Your task to perform on an android device: allow cookies in the chrome app Image 0: 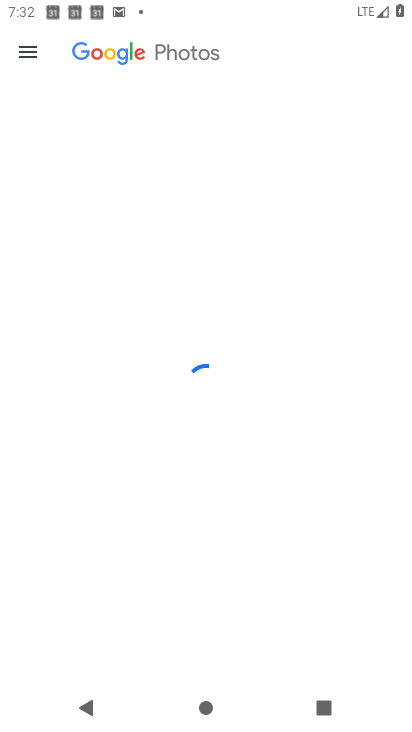
Step 0: press home button
Your task to perform on an android device: allow cookies in the chrome app Image 1: 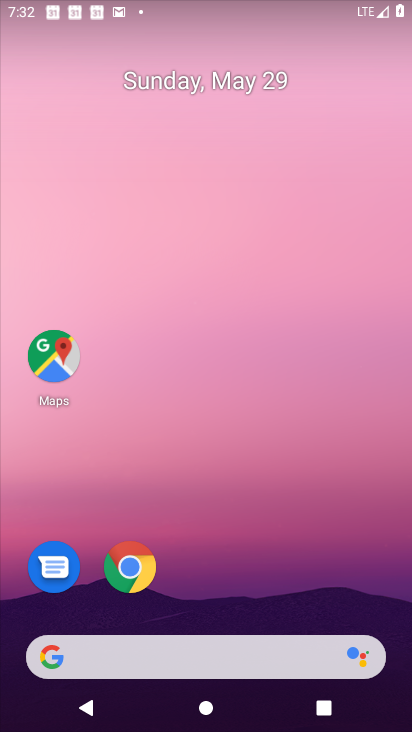
Step 1: click (132, 559)
Your task to perform on an android device: allow cookies in the chrome app Image 2: 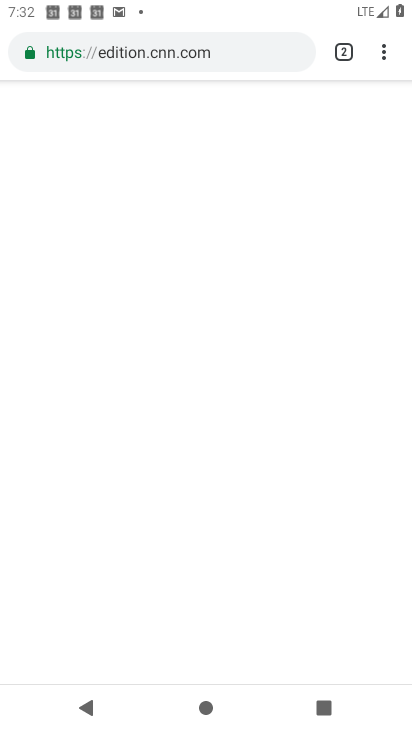
Step 2: click (381, 53)
Your task to perform on an android device: allow cookies in the chrome app Image 3: 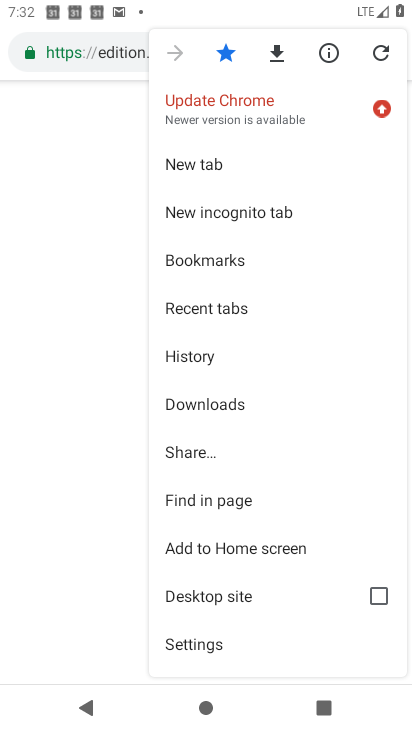
Step 3: click (206, 648)
Your task to perform on an android device: allow cookies in the chrome app Image 4: 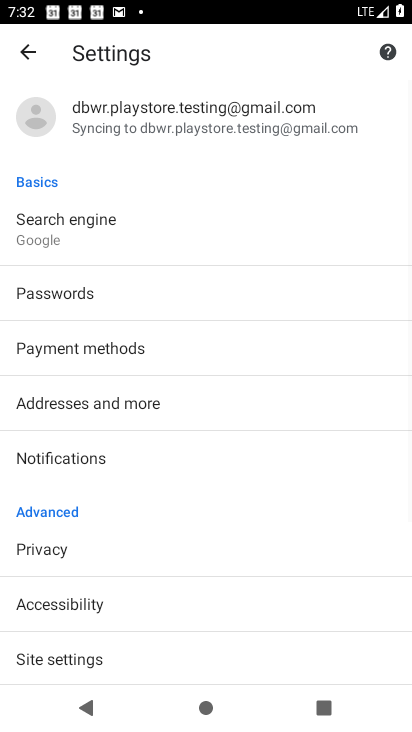
Step 4: drag from (162, 543) to (189, 397)
Your task to perform on an android device: allow cookies in the chrome app Image 5: 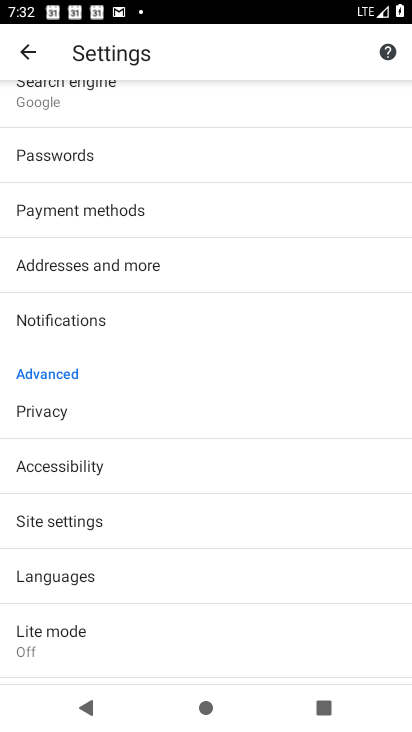
Step 5: click (74, 329)
Your task to perform on an android device: allow cookies in the chrome app Image 6: 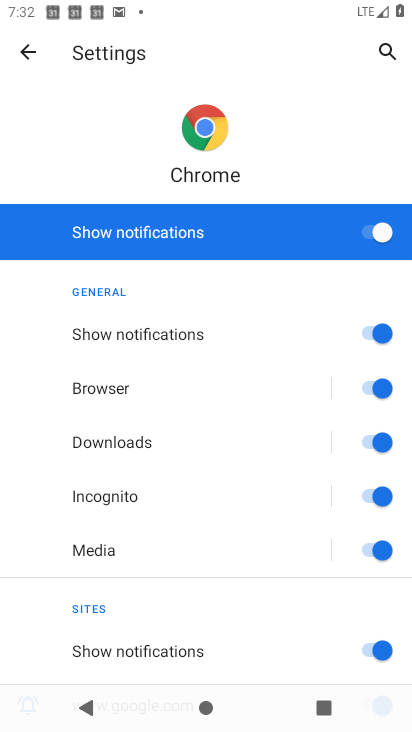
Step 6: click (26, 52)
Your task to perform on an android device: allow cookies in the chrome app Image 7: 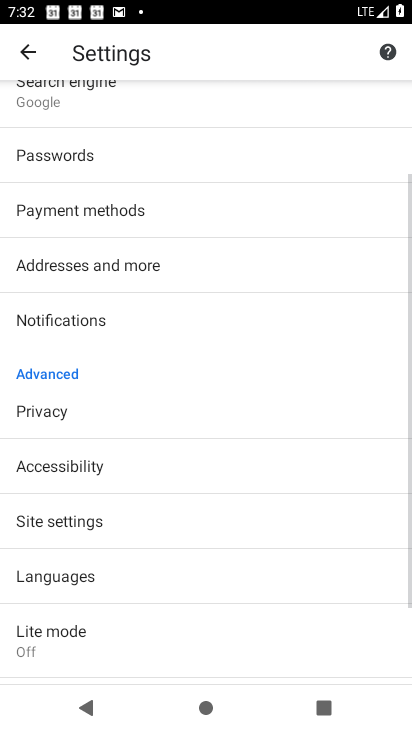
Step 7: click (96, 507)
Your task to perform on an android device: allow cookies in the chrome app Image 8: 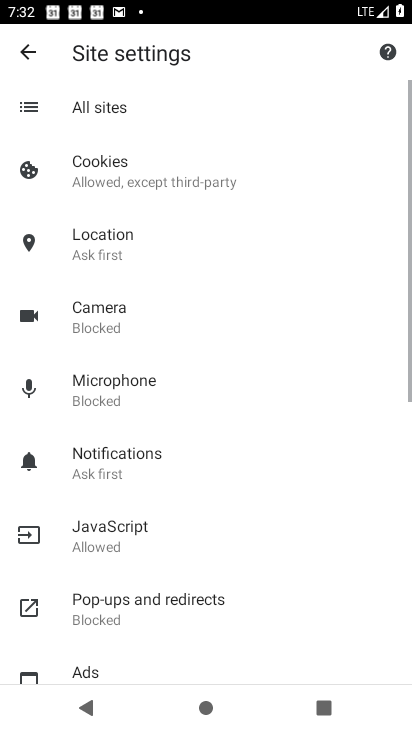
Step 8: click (153, 171)
Your task to perform on an android device: allow cookies in the chrome app Image 9: 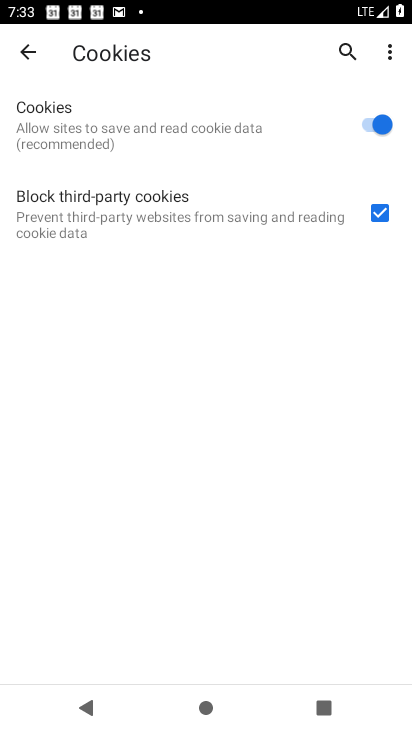
Step 9: task complete